Your task to perform on an android device: turn off smart reply in the gmail app Image 0: 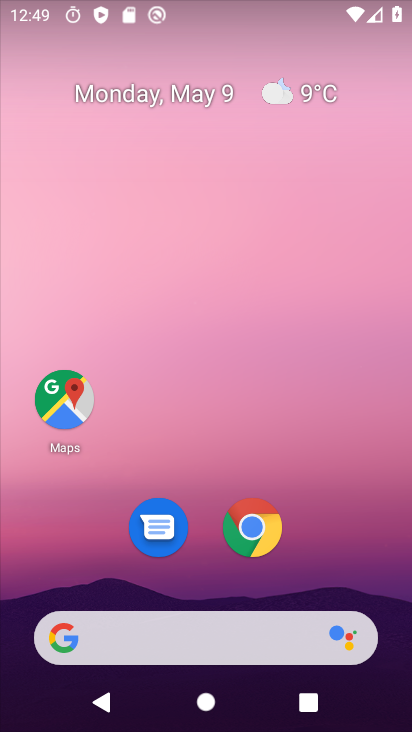
Step 0: drag from (162, 583) to (258, 44)
Your task to perform on an android device: turn off smart reply in the gmail app Image 1: 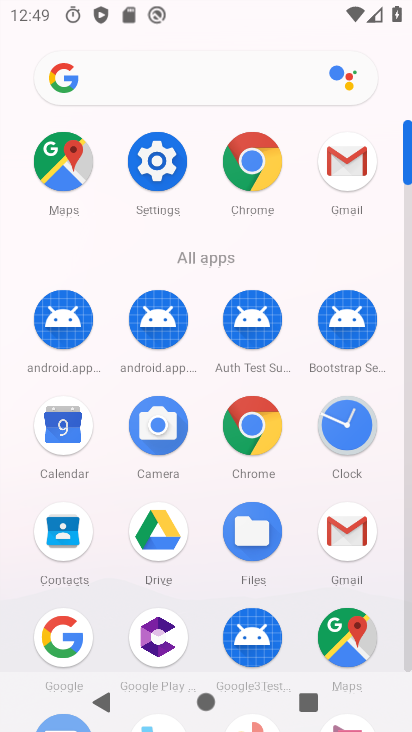
Step 1: click (338, 157)
Your task to perform on an android device: turn off smart reply in the gmail app Image 2: 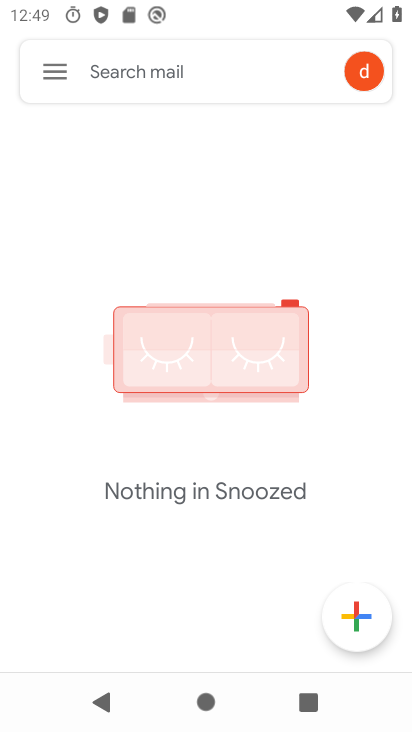
Step 2: click (43, 67)
Your task to perform on an android device: turn off smart reply in the gmail app Image 3: 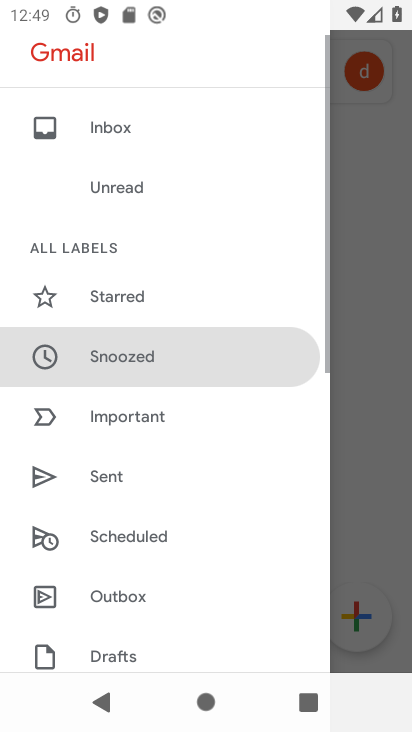
Step 3: drag from (175, 654) to (256, 13)
Your task to perform on an android device: turn off smart reply in the gmail app Image 4: 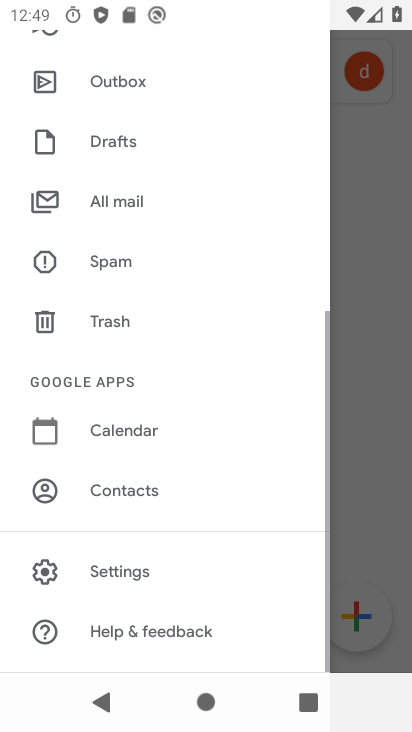
Step 4: click (123, 577)
Your task to perform on an android device: turn off smart reply in the gmail app Image 5: 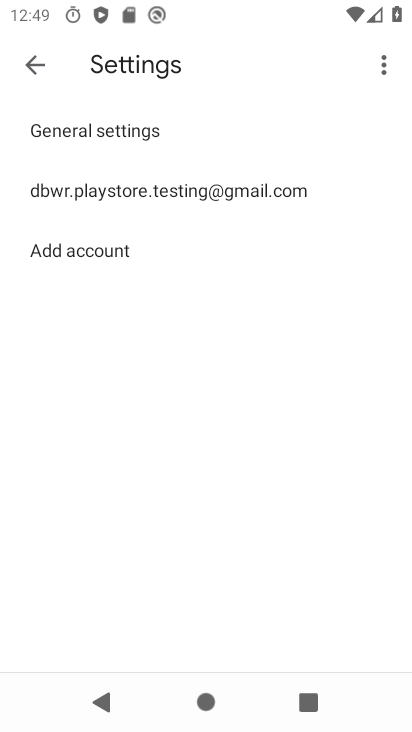
Step 5: click (125, 200)
Your task to perform on an android device: turn off smart reply in the gmail app Image 6: 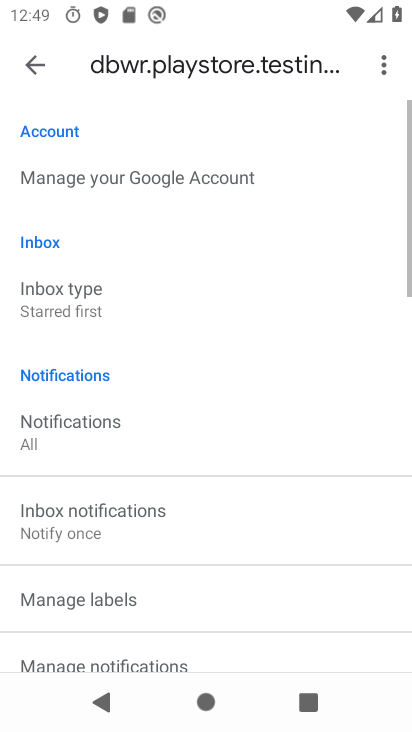
Step 6: drag from (195, 619) to (287, 32)
Your task to perform on an android device: turn off smart reply in the gmail app Image 7: 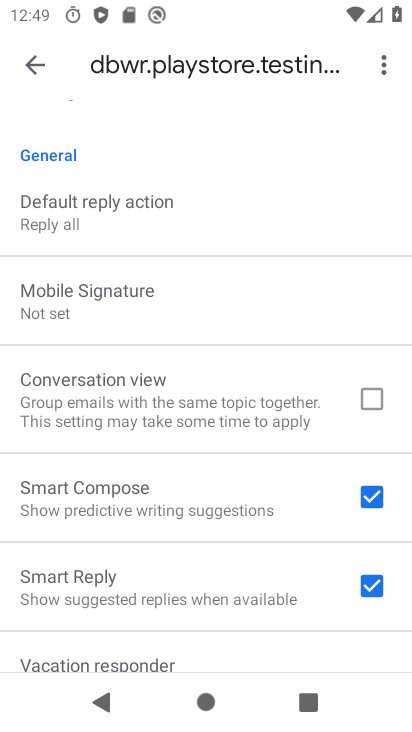
Step 7: click (370, 587)
Your task to perform on an android device: turn off smart reply in the gmail app Image 8: 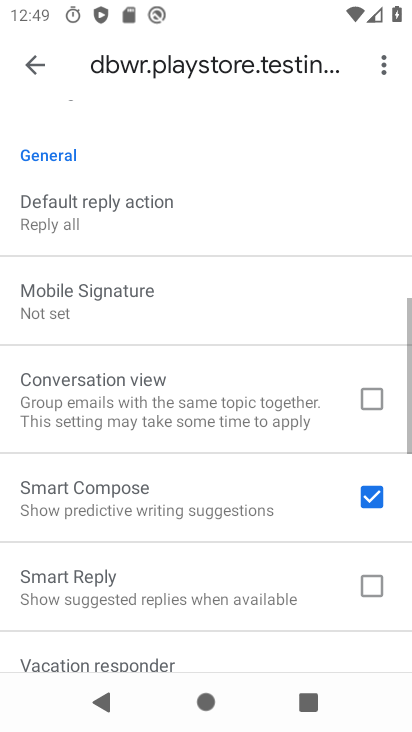
Step 8: task complete